Your task to perform on an android device: Go to privacy settings Image 0: 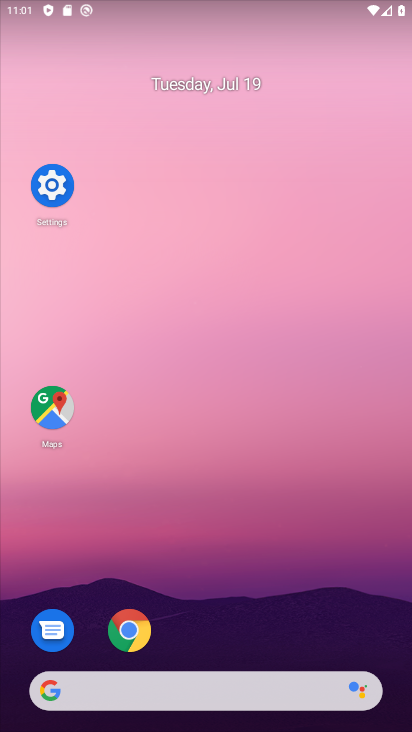
Step 0: click (268, 217)
Your task to perform on an android device: Go to privacy settings Image 1: 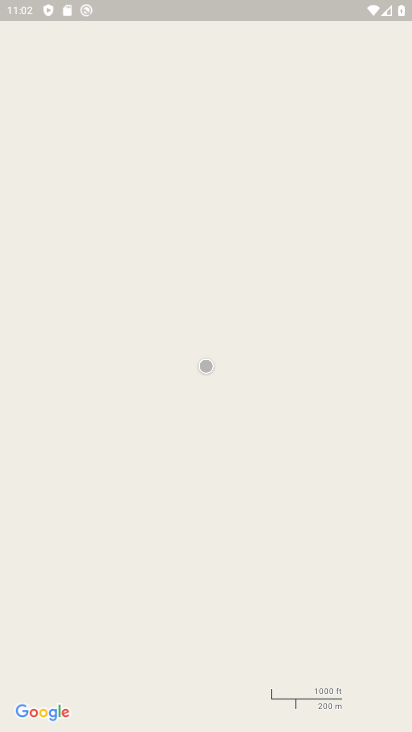
Step 1: press home button
Your task to perform on an android device: Go to privacy settings Image 2: 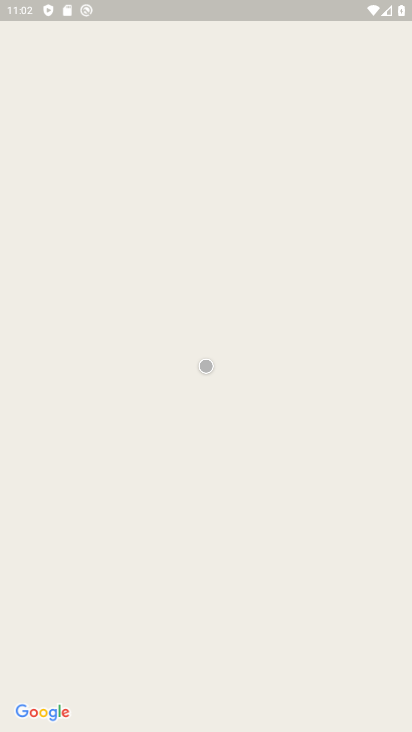
Step 2: press home button
Your task to perform on an android device: Go to privacy settings Image 3: 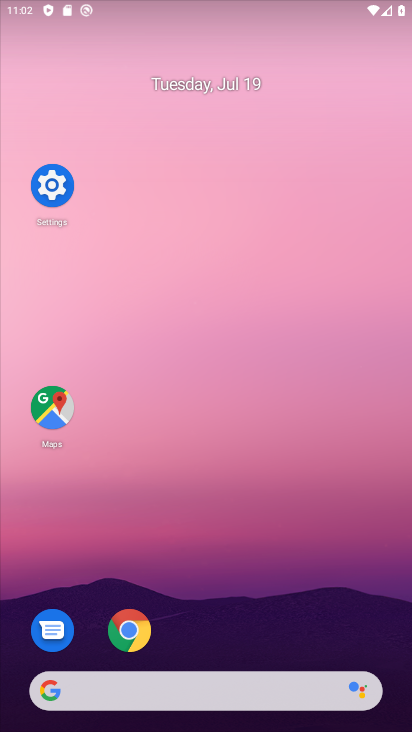
Step 3: press back button
Your task to perform on an android device: Go to privacy settings Image 4: 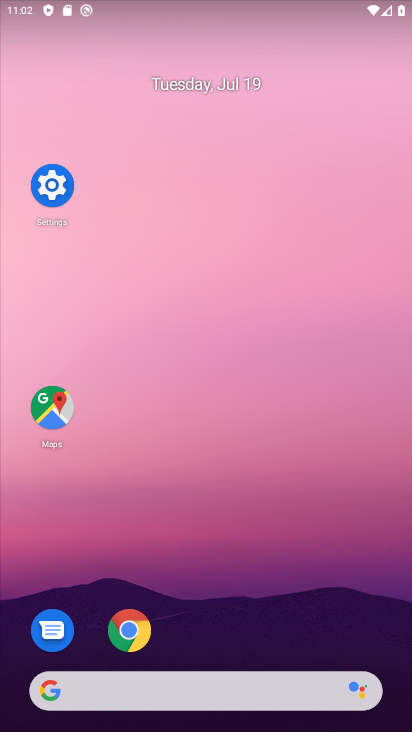
Step 4: drag from (324, 607) to (381, 35)
Your task to perform on an android device: Go to privacy settings Image 5: 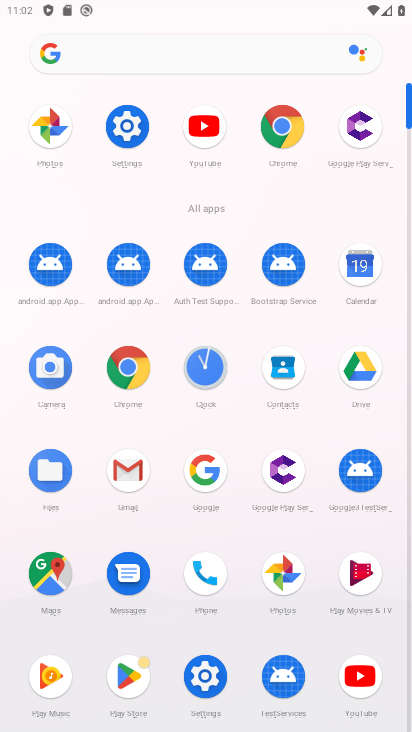
Step 5: click (124, 114)
Your task to perform on an android device: Go to privacy settings Image 6: 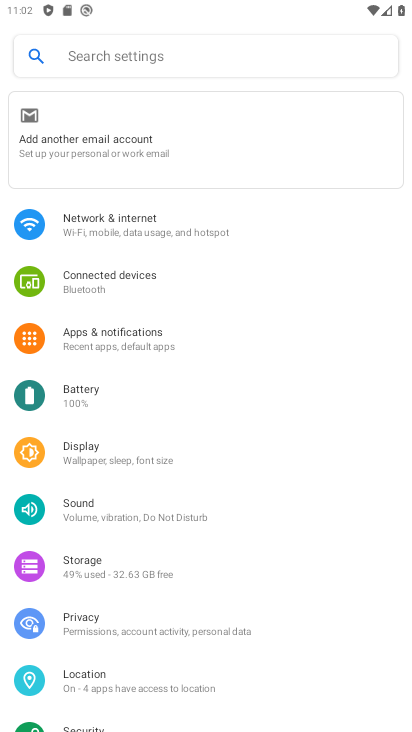
Step 6: click (113, 621)
Your task to perform on an android device: Go to privacy settings Image 7: 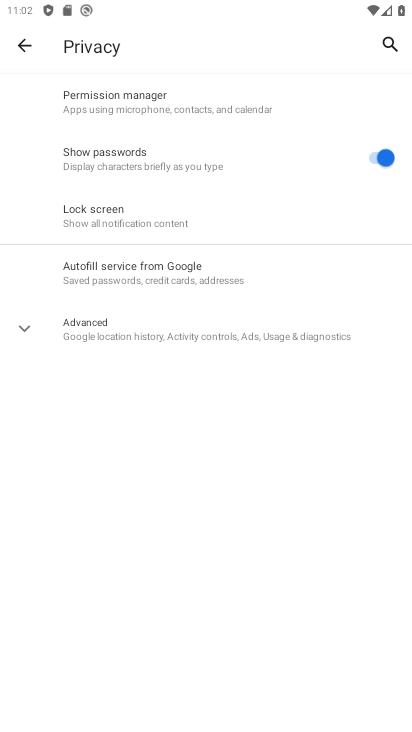
Step 7: task complete